Your task to perform on an android device: manage bookmarks in the chrome app Image 0: 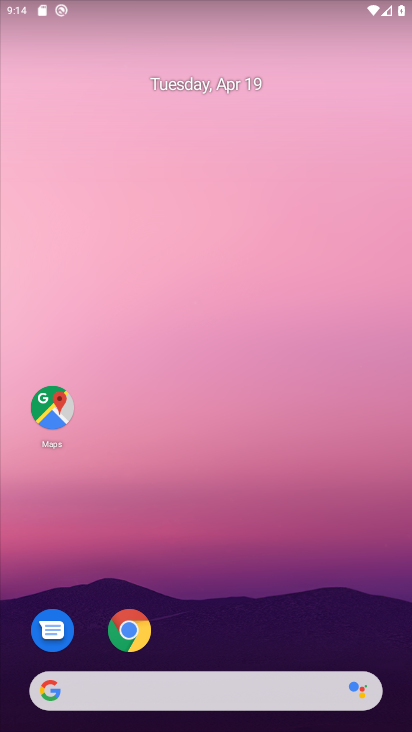
Step 0: drag from (289, 596) to (295, 204)
Your task to perform on an android device: manage bookmarks in the chrome app Image 1: 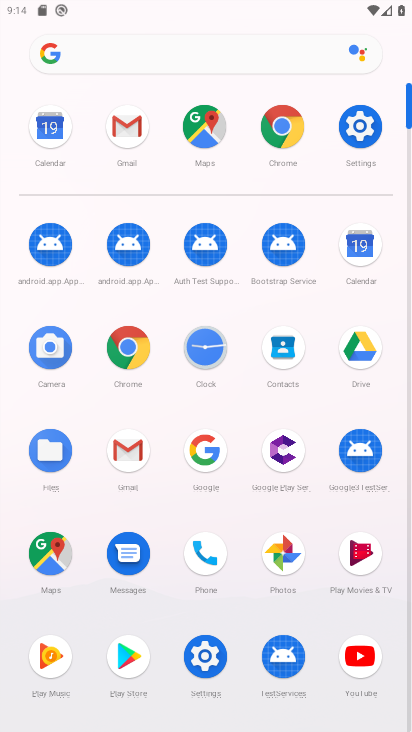
Step 1: click (285, 120)
Your task to perform on an android device: manage bookmarks in the chrome app Image 2: 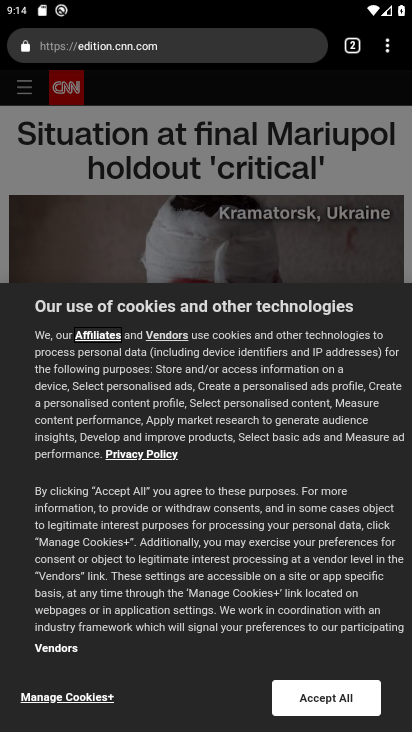
Step 2: click (406, 126)
Your task to perform on an android device: manage bookmarks in the chrome app Image 3: 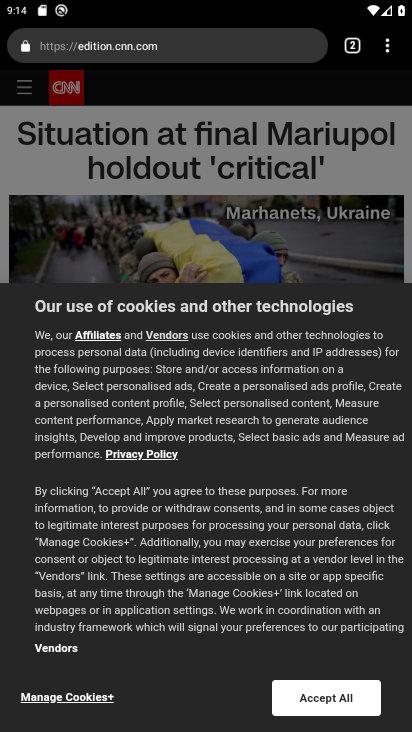
Step 3: click (385, 53)
Your task to perform on an android device: manage bookmarks in the chrome app Image 4: 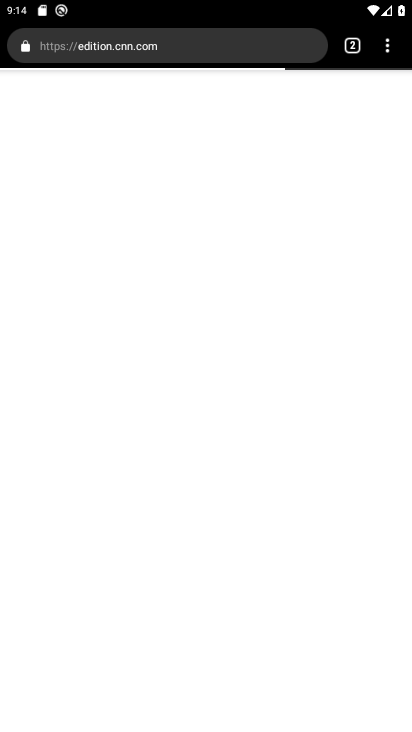
Step 4: click (390, 52)
Your task to perform on an android device: manage bookmarks in the chrome app Image 5: 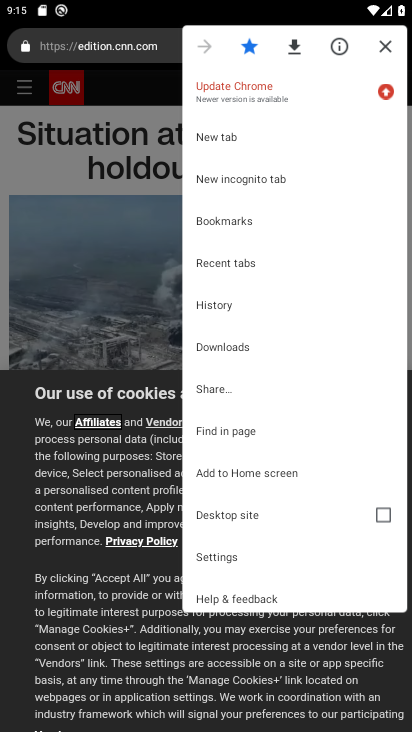
Step 5: click (241, 221)
Your task to perform on an android device: manage bookmarks in the chrome app Image 6: 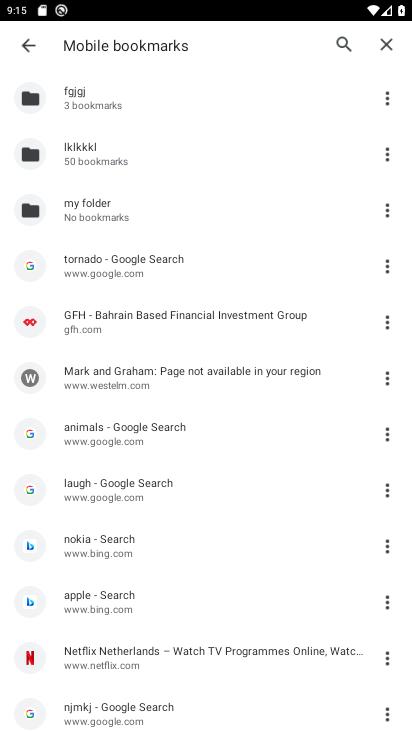
Step 6: task complete